Your task to perform on an android device: Open Chrome and go to settings Image 0: 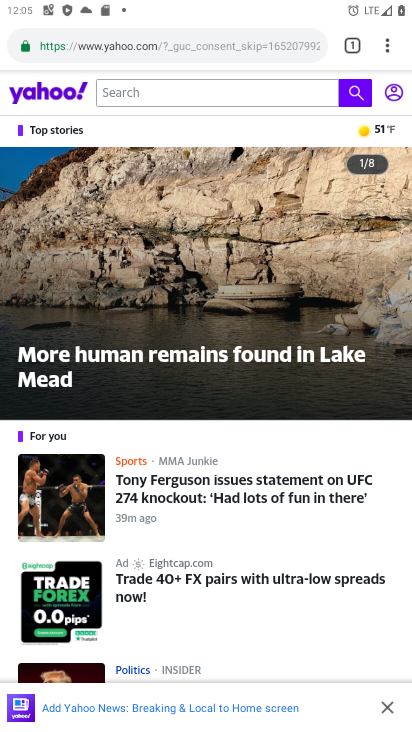
Step 0: press home button
Your task to perform on an android device: Open Chrome and go to settings Image 1: 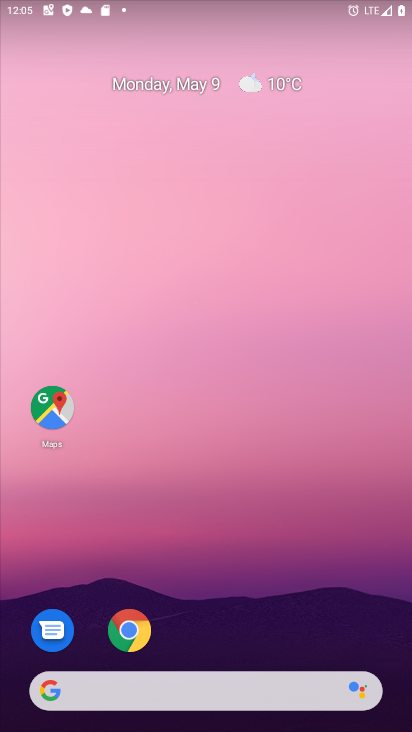
Step 1: drag from (379, 606) to (276, 75)
Your task to perform on an android device: Open Chrome and go to settings Image 2: 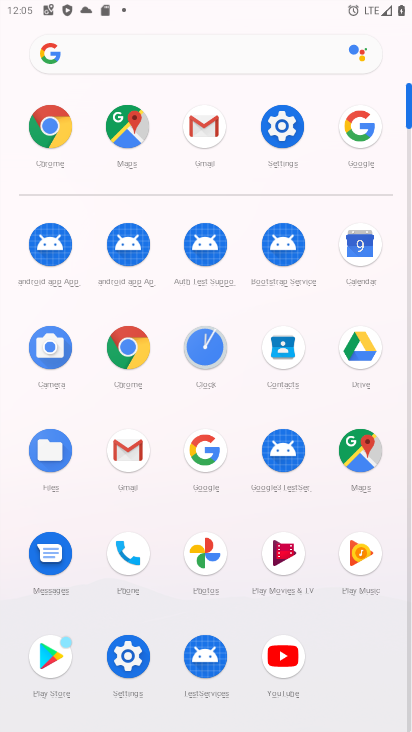
Step 2: click (128, 362)
Your task to perform on an android device: Open Chrome and go to settings Image 3: 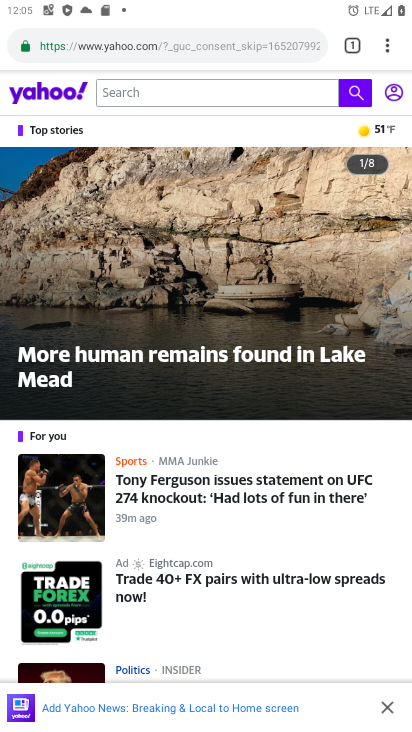
Step 3: press back button
Your task to perform on an android device: Open Chrome and go to settings Image 4: 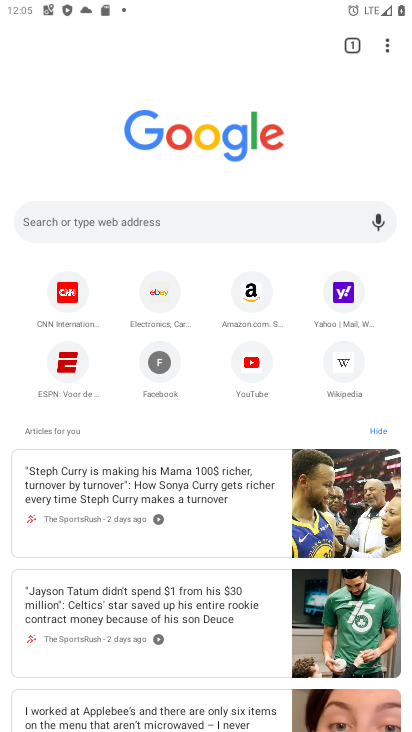
Step 4: click (385, 44)
Your task to perform on an android device: Open Chrome and go to settings Image 5: 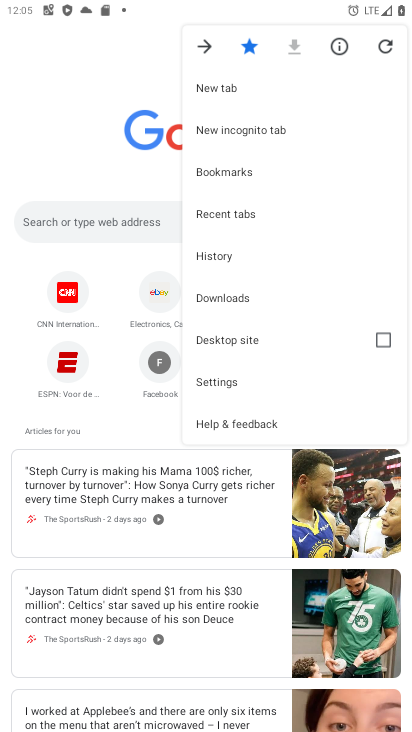
Step 5: click (230, 381)
Your task to perform on an android device: Open Chrome and go to settings Image 6: 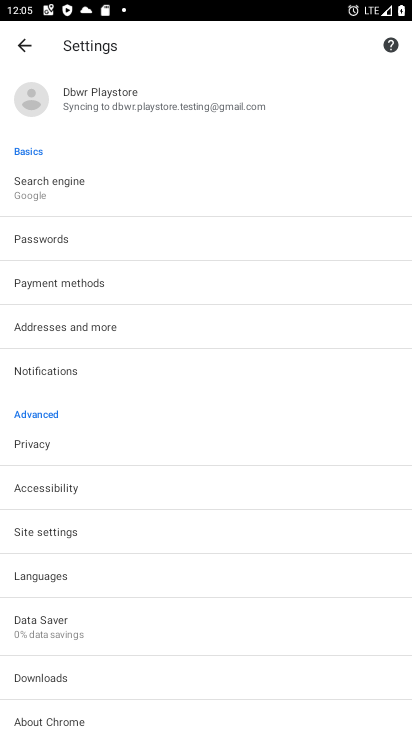
Step 6: task complete